Your task to perform on an android device: Open settings on Google Maps Image 0: 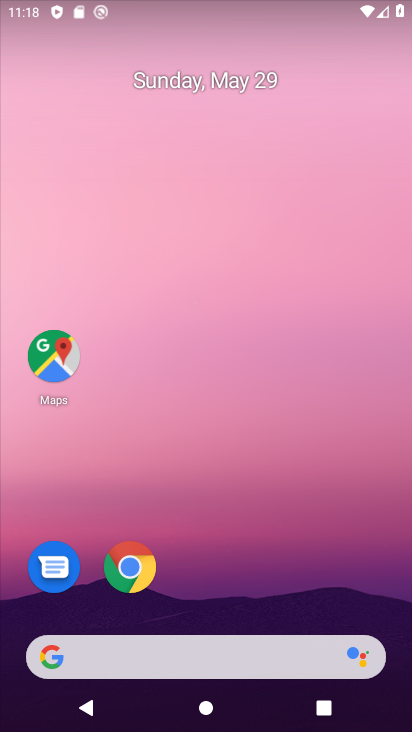
Step 0: drag from (245, 581) to (244, 200)
Your task to perform on an android device: Open settings on Google Maps Image 1: 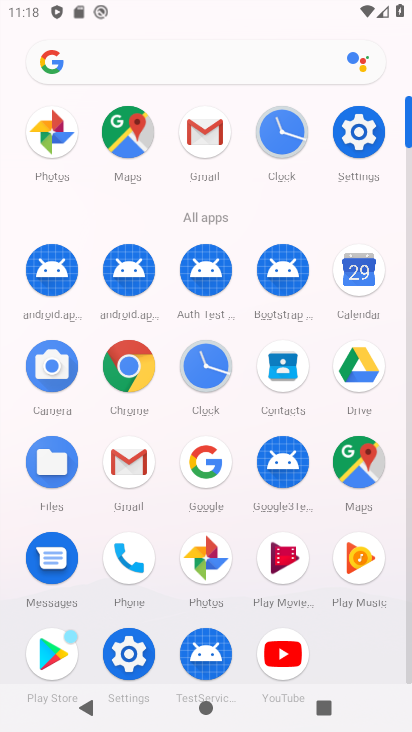
Step 1: click (377, 468)
Your task to perform on an android device: Open settings on Google Maps Image 2: 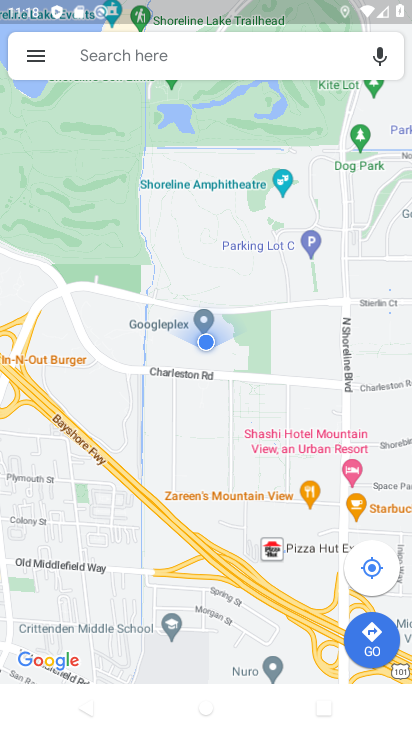
Step 2: click (32, 51)
Your task to perform on an android device: Open settings on Google Maps Image 3: 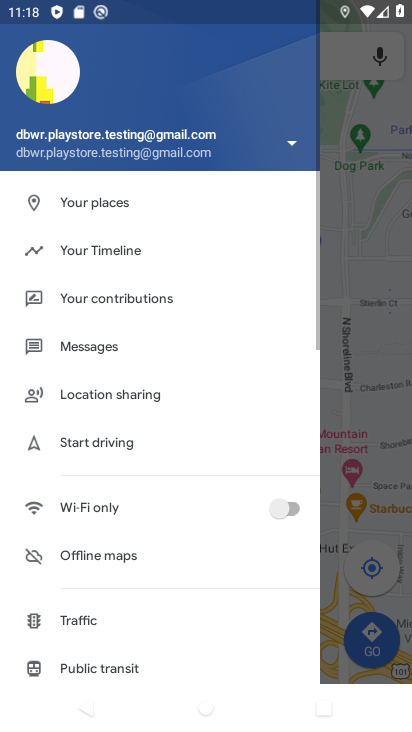
Step 3: click (81, 253)
Your task to perform on an android device: Open settings on Google Maps Image 4: 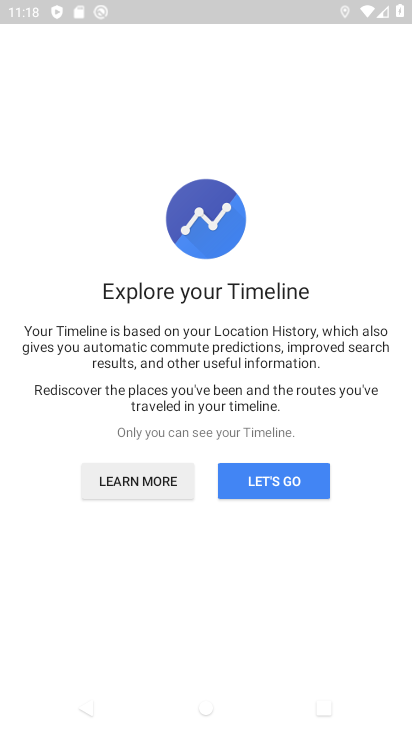
Step 4: click (258, 484)
Your task to perform on an android device: Open settings on Google Maps Image 5: 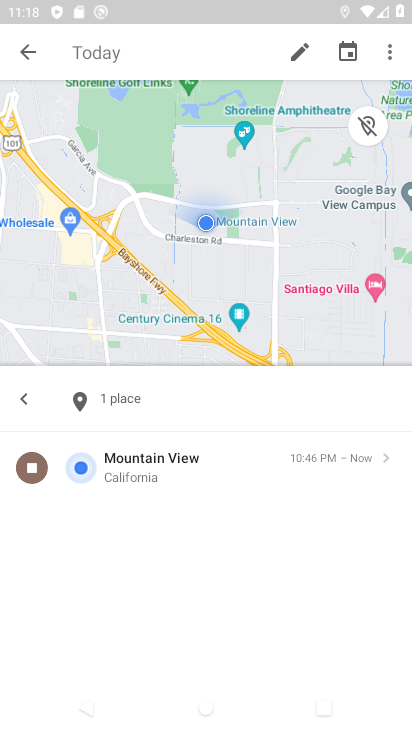
Step 5: click (396, 58)
Your task to perform on an android device: Open settings on Google Maps Image 6: 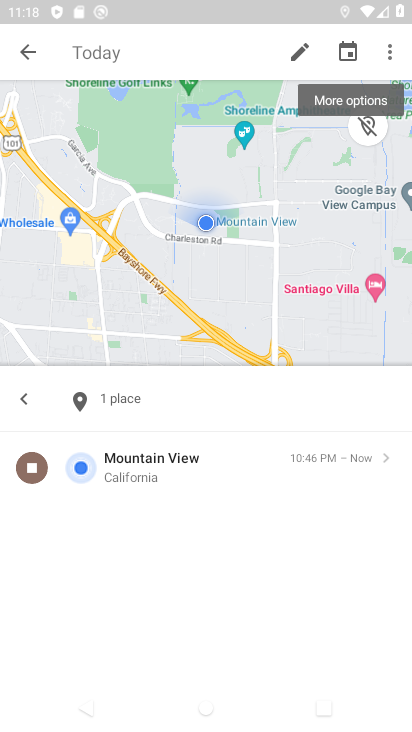
Step 6: click (388, 63)
Your task to perform on an android device: Open settings on Google Maps Image 7: 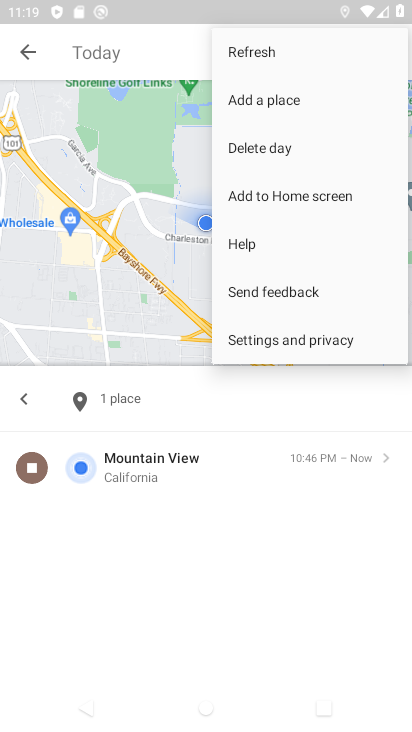
Step 7: click (262, 343)
Your task to perform on an android device: Open settings on Google Maps Image 8: 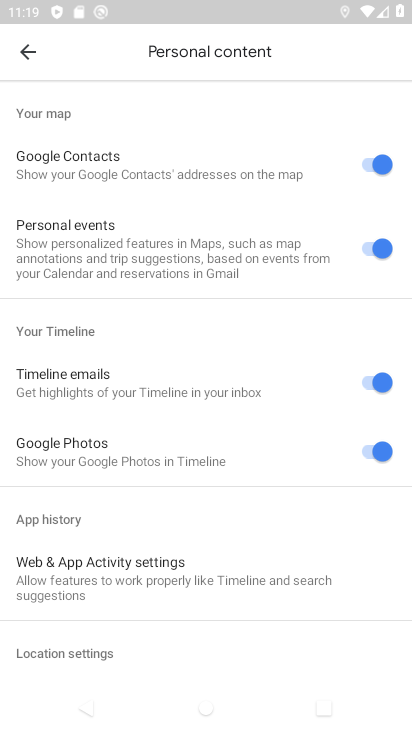
Step 8: task complete